Your task to perform on an android device: What is the recent news? Image 0: 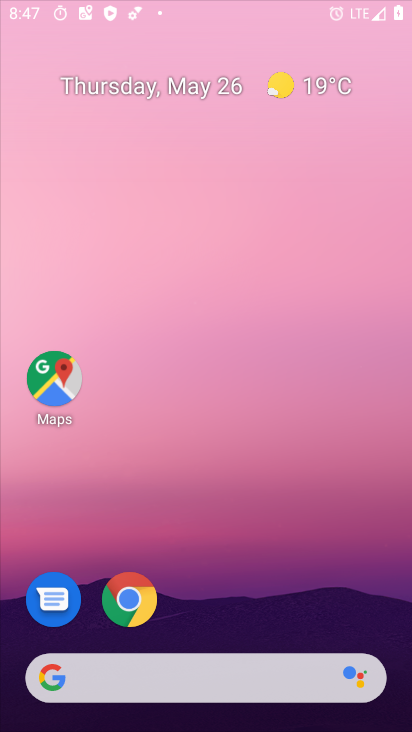
Step 0: press home button
Your task to perform on an android device: What is the recent news? Image 1: 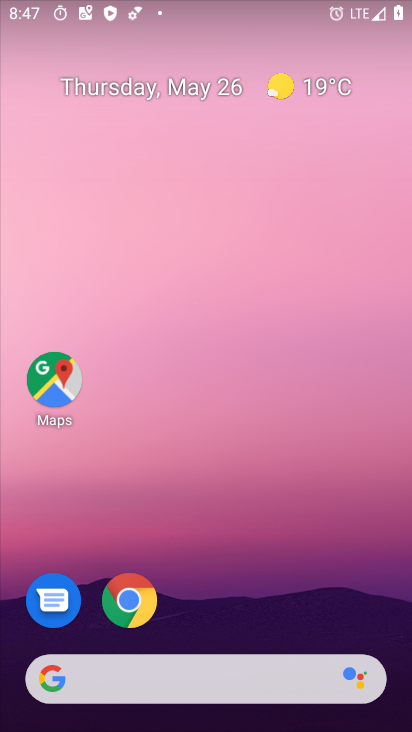
Step 1: click (41, 692)
Your task to perform on an android device: What is the recent news? Image 2: 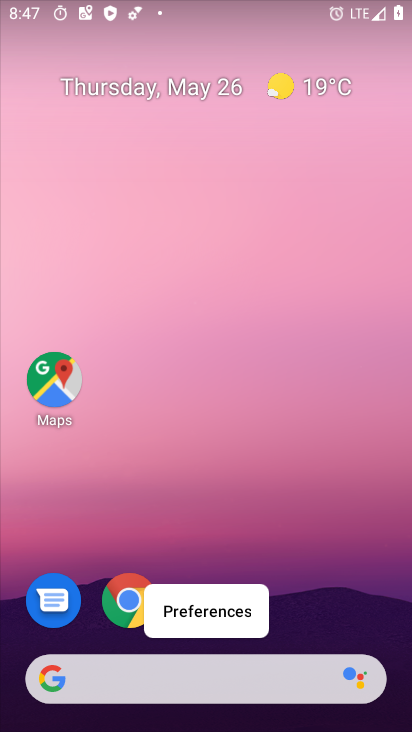
Step 2: click (56, 680)
Your task to perform on an android device: What is the recent news? Image 3: 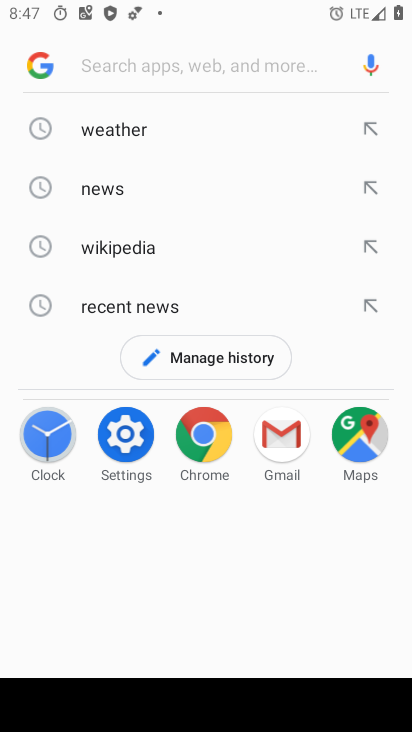
Step 3: click (134, 308)
Your task to perform on an android device: What is the recent news? Image 4: 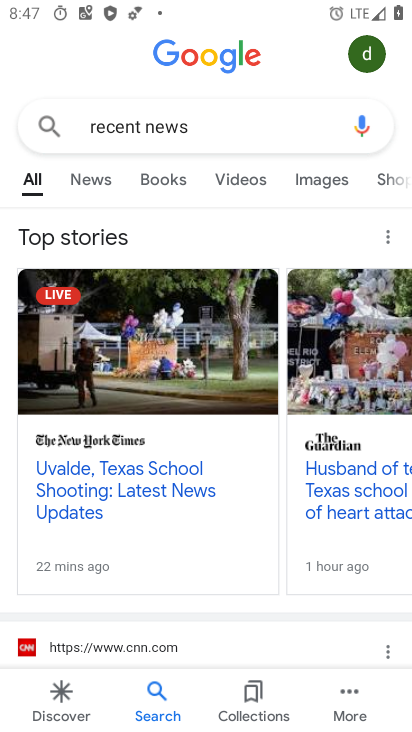
Step 4: task complete